Your task to perform on an android device: turn on notifications settings in the gmail app Image 0: 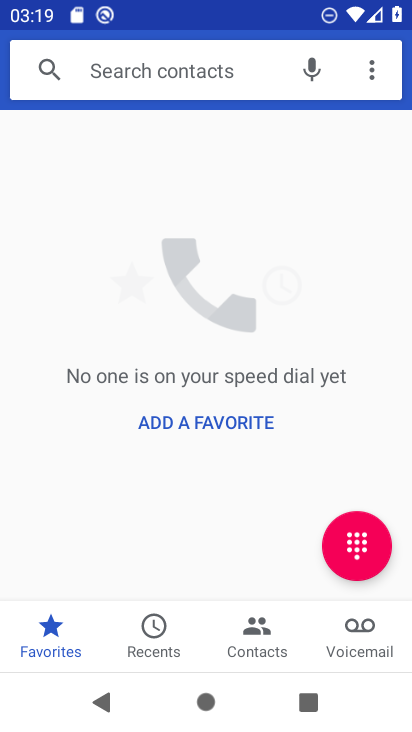
Step 0: press home button
Your task to perform on an android device: turn on notifications settings in the gmail app Image 1: 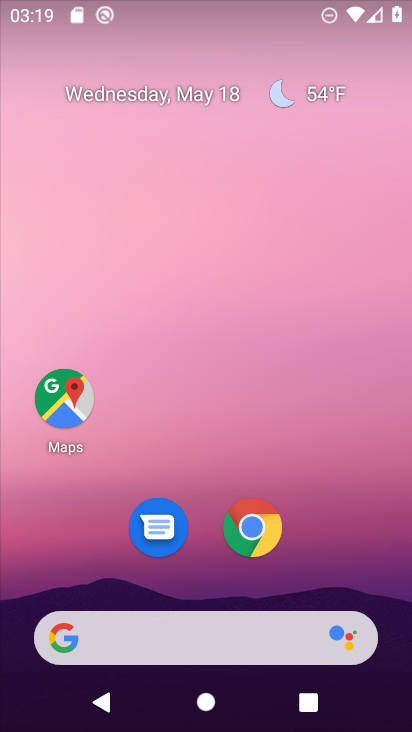
Step 1: drag from (226, 592) to (280, 25)
Your task to perform on an android device: turn on notifications settings in the gmail app Image 2: 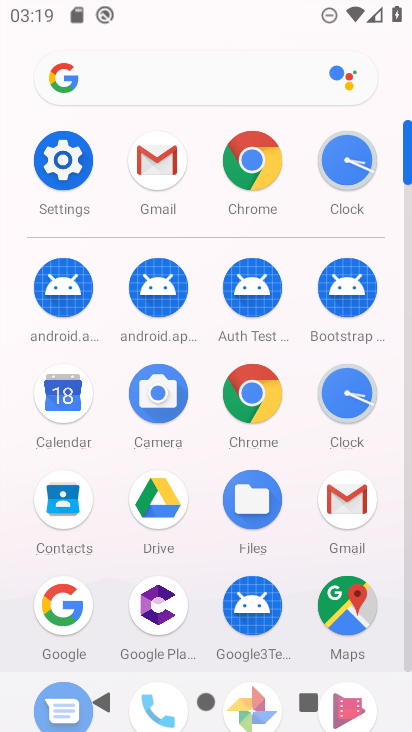
Step 2: click (351, 494)
Your task to perform on an android device: turn on notifications settings in the gmail app Image 3: 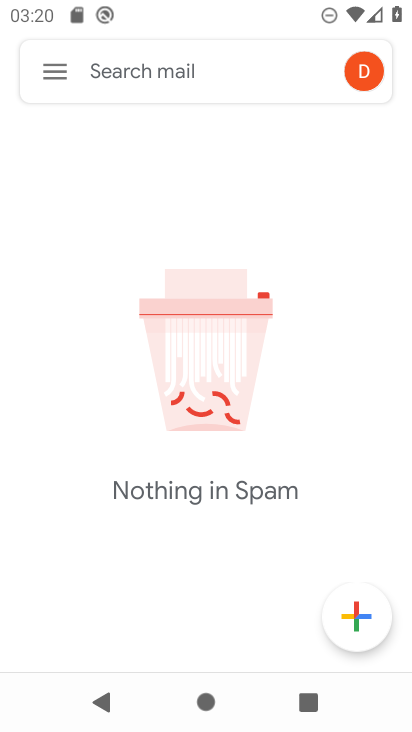
Step 3: click (52, 75)
Your task to perform on an android device: turn on notifications settings in the gmail app Image 4: 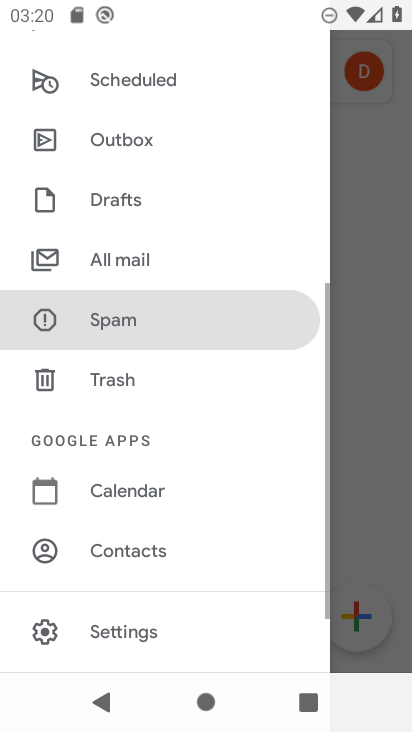
Step 4: click (131, 617)
Your task to perform on an android device: turn on notifications settings in the gmail app Image 5: 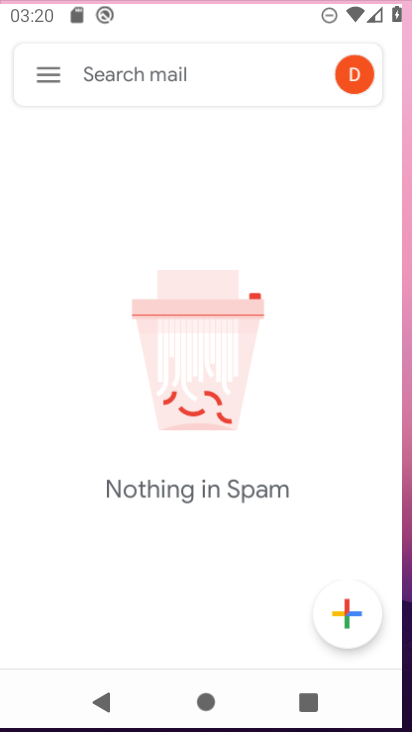
Step 5: drag from (132, 618) to (104, 318)
Your task to perform on an android device: turn on notifications settings in the gmail app Image 6: 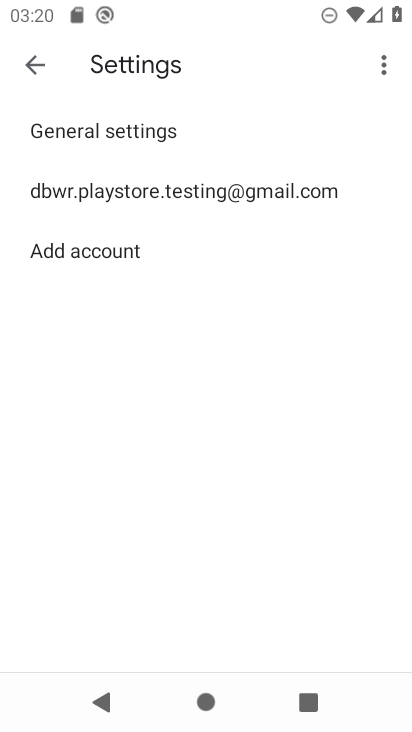
Step 6: click (99, 127)
Your task to perform on an android device: turn on notifications settings in the gmail app Image 7: 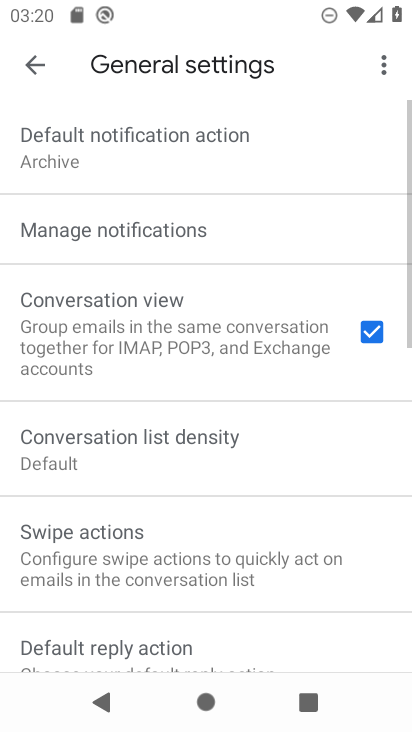
Step 7: click (150, 236)
Your task to perform on an android device: turn on notifications settings in the gmail app Image 8: 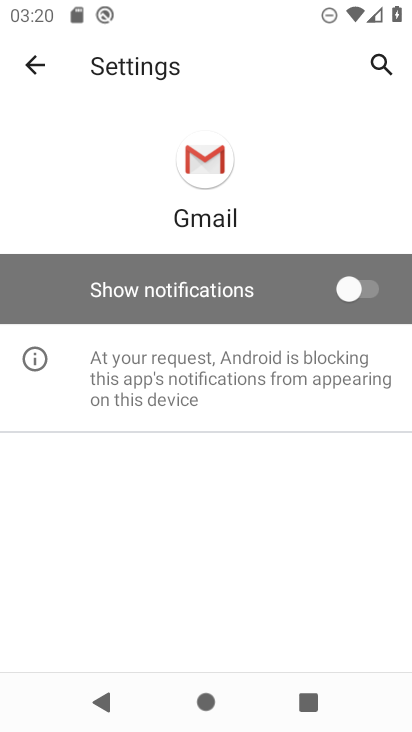
Step 8: click (356, 298)
Your task to perform on an android device: turn on notifications settings in the gmail app Image 9: 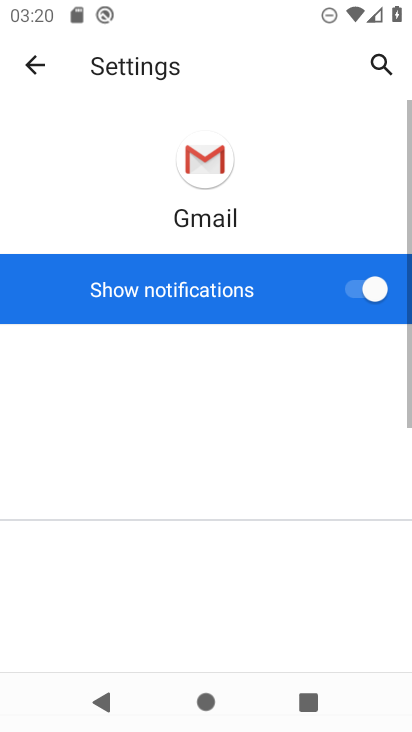
Step 9: task complete